Your task to perform on an android device: check battery use Image 0: 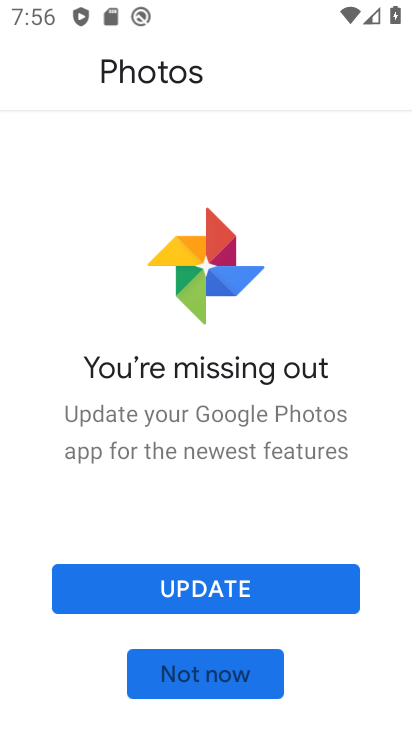
Step 0: press home button
Your task to perform on an android device: check battery use Image 1: 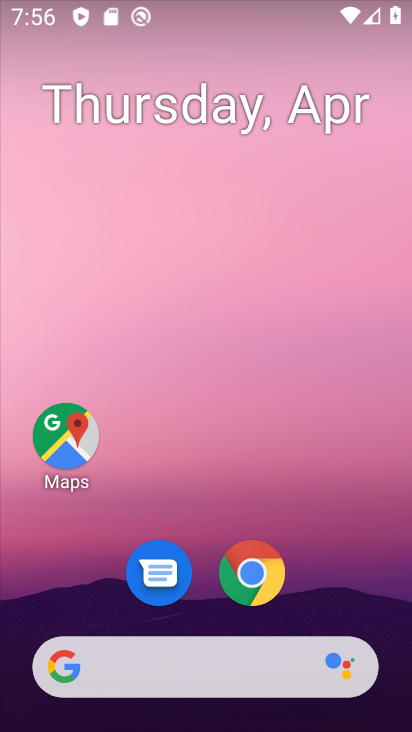
Step 1: drag from (210, 648) to (210, 106)
Your task to perform on an android device: check battery use Image 2: 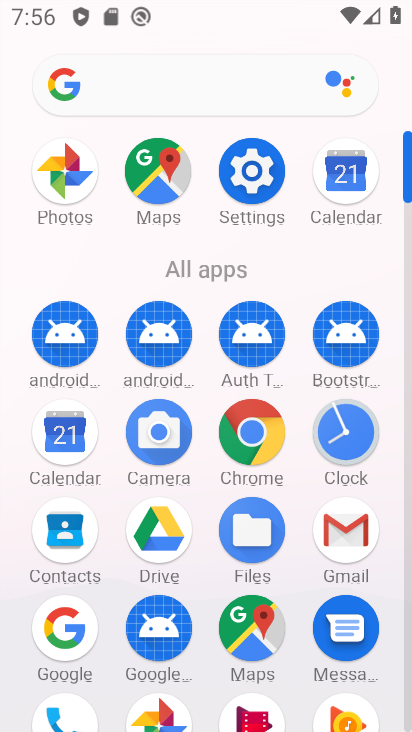
Step 2: click (250, 170)
Your task to perform on an android device: check battery use Image 3: 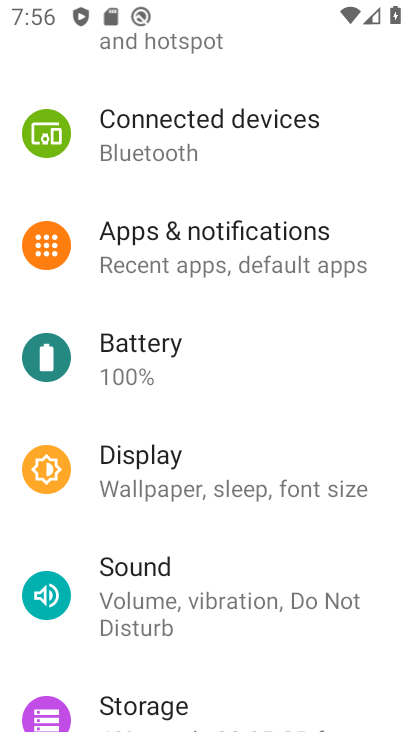
Step 3: click (144, 357)
Your task to perform on an android device: check battery use Image 4: 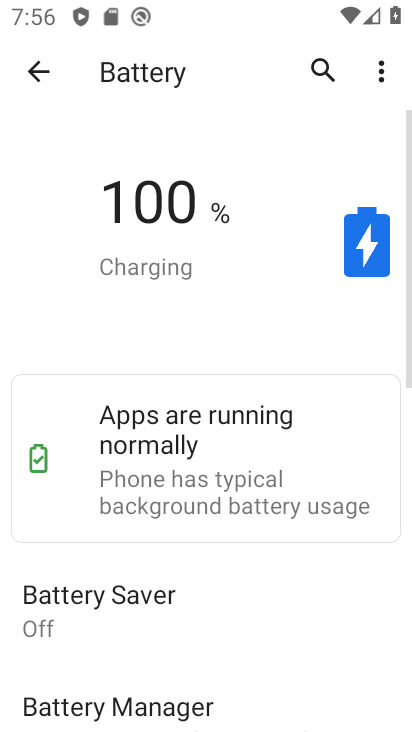
Step 4: click (380, 78)
Your task to perform on an android device: check battery use Image 5: 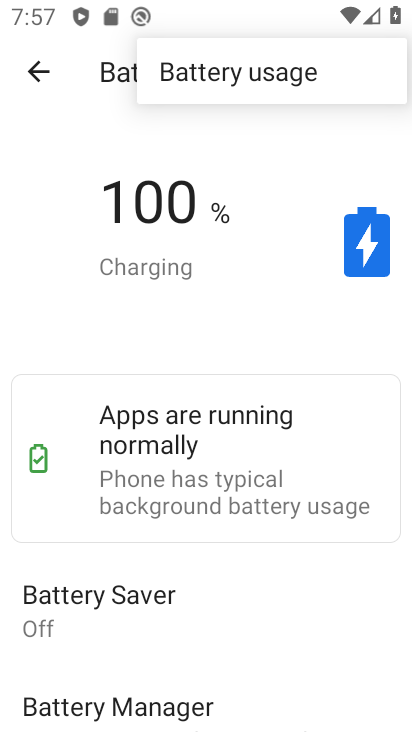
Step 5: click (249, 74)
Your task to perform on an android device: check battery use Image 6: 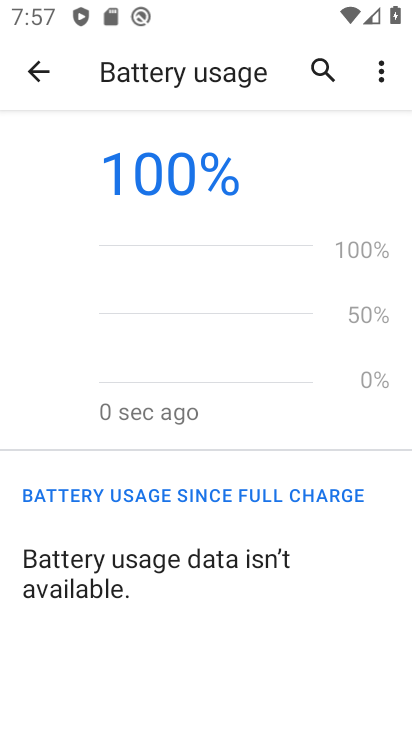
Step 6: task complete